Your task to perform on an android device: empty trash in google photos Image 0: 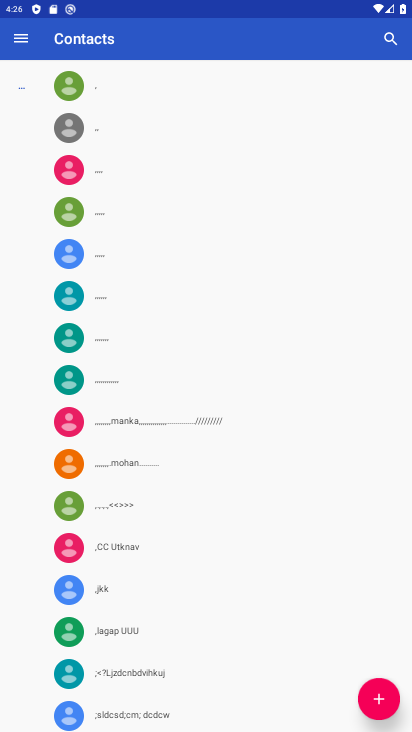
Step 0: press home button
Your task to perform on an android device: empty trash in google photos Image 1: 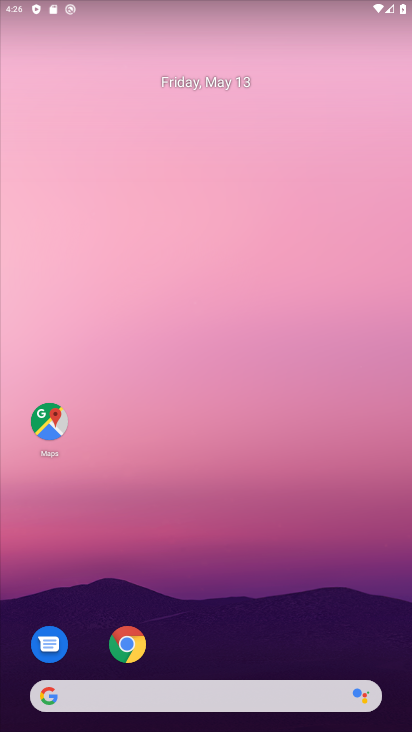
Step 1: drag from (210, 595) to (352, 74)
Your task to perform on an android device: empty trash in google photos Image 2: 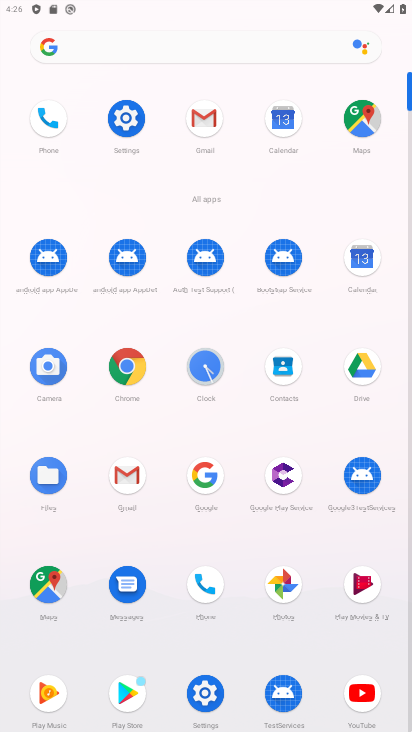
Step 2: click (277, 581)
Your task to perform on an android device: empty trash in google photos Image 3: 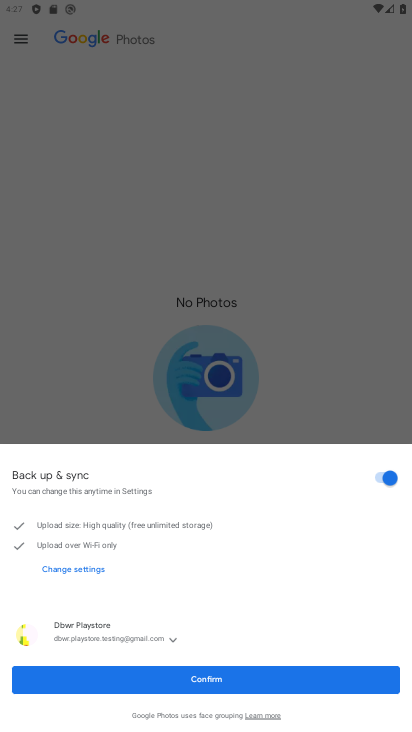
Step 3: click (213, 669)
Your task to perform on an android device: empty trash in google photos Image 4: 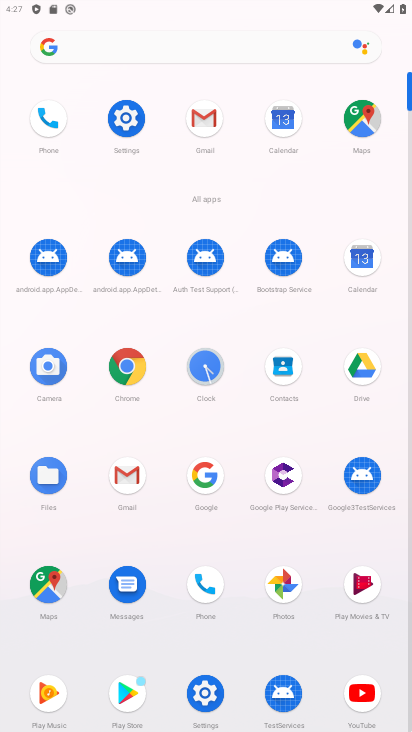
Step 4: click (265, 588)
Your task to perform on an android device: empty trash in google photos Image 5: 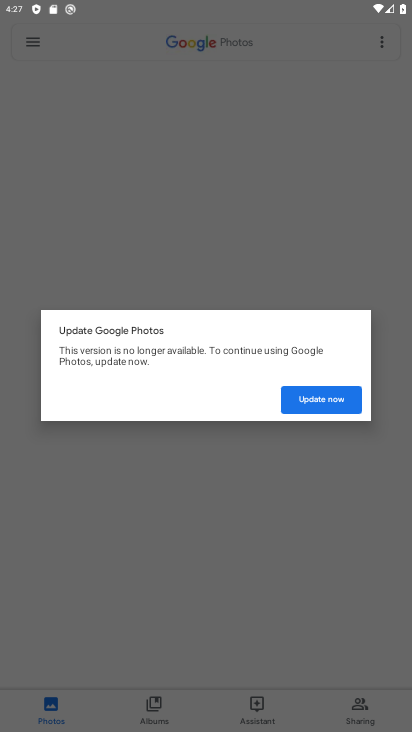
Step 5: click (310, 403)
Your task to perform on an android device: empty trash in google photos Image 6: 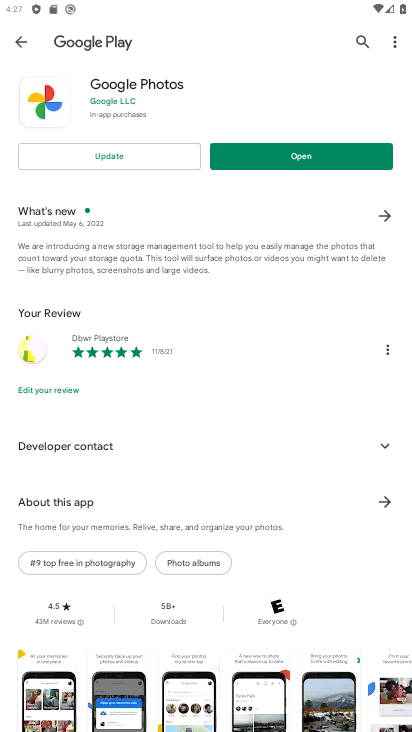
Step 6: click (279, 156)
Your task to perform on an android device: empty trash in google photos Image 7: 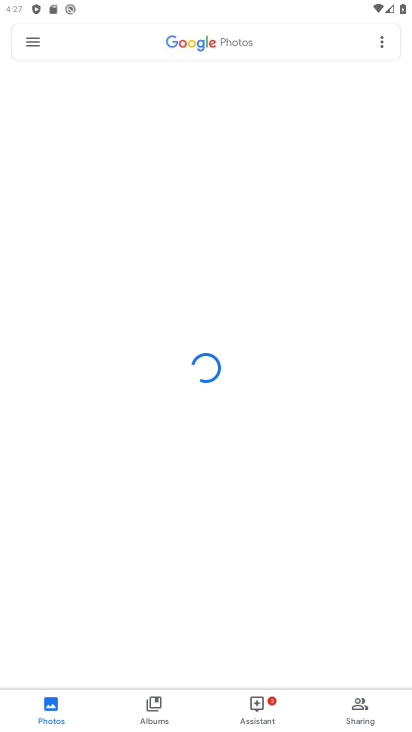
Step 7: click (37, 43)
Your task to perform on an android device: empty trash in google photos Image 8: 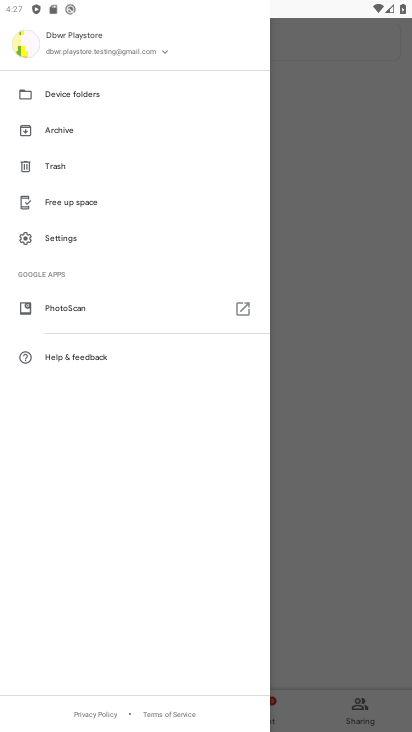
Step 8: click (67, 166)
Your task to perform on an android device: empty trash in google photos Image 9: 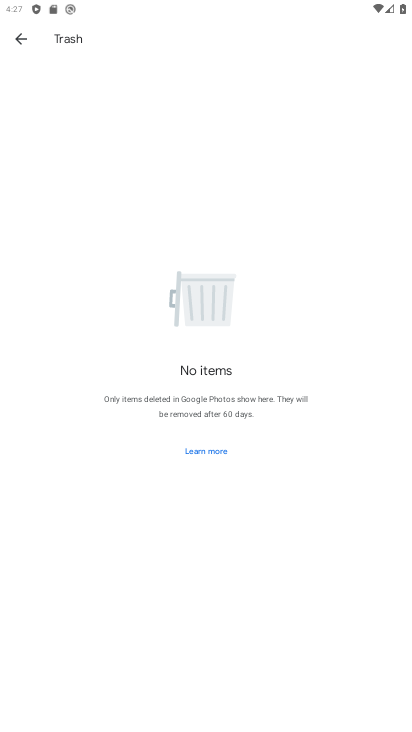
Step 9: task complete